Your task to perform on an android device: Play the new Taylor Swift video on YouTube Image 0: 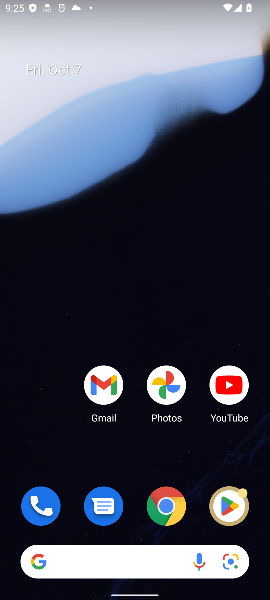
Step 0: click (227, 386)
Your task to perform on an android device: Play the new Taylor Swift video on YouTube Image 1: 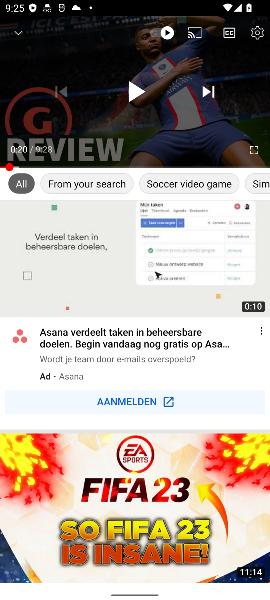
Step 1: press back button
Your task to perform on an android device: Play the new Taylor Swift video on YouTube Image 2: 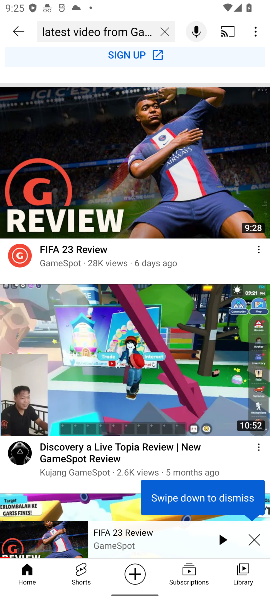
Step 2: click (28, 572)
Your task to perform on an android device: Play the new Taylor Swift video on YouTube Image 3: 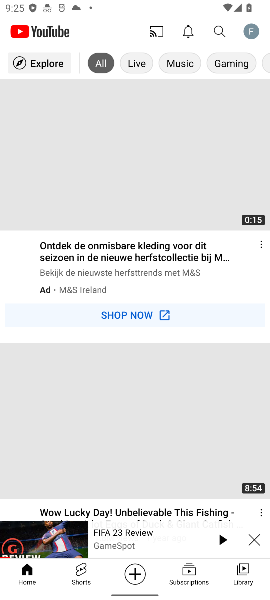
Step 3: click (216, 28)
Your task to perform on an android device: Play the new Taylor Swift video on YouTube Image 4: 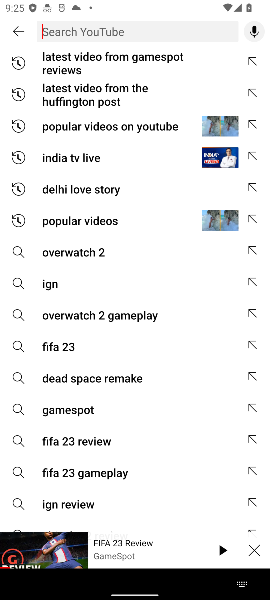
Step 4: click (250, 550)
Your task to perform on an android device: Play the new Taylor Swift video on YouTube Image 5: 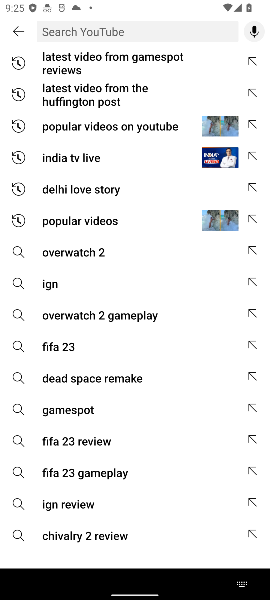
Step 5: click (90, 27)
Your task to perform on an android device: Play the new Taylor Swift video on YouTube Image 6: 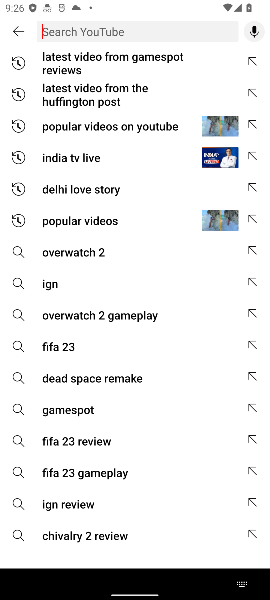
Step 6: type " new Taylor Swift video"
Your task to perform on an android device: Play the new Taylor Swift video on YouTube Image 7: 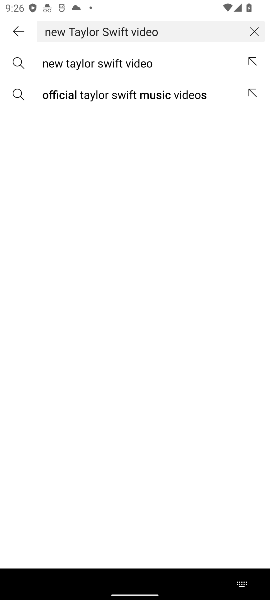
Step 7: click (111, 63)
Your task to perform on an android device: Play the new Taylor Swift video on YouTube Image 8: 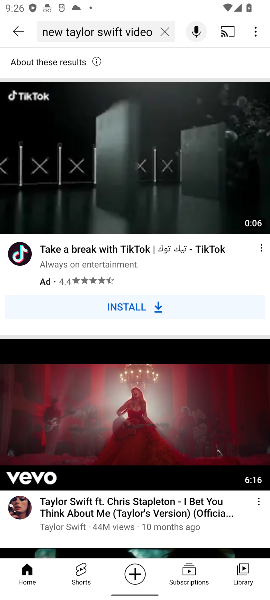
Step 8: drag from (94, 417) to (167, 183)
Your task to perform on an android device: Play the new Taylor Swift video on YouTube Image 9: 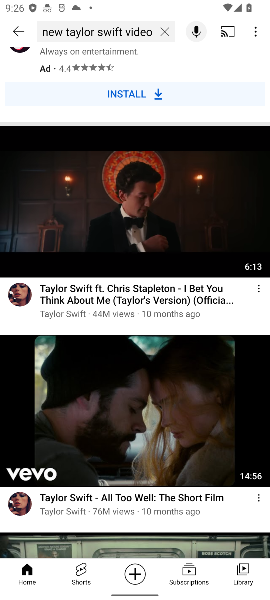
Step 9: click (128, 209)
Your task to perform on an android device: Play the new Taylor Swift video on YouTube Image 10: 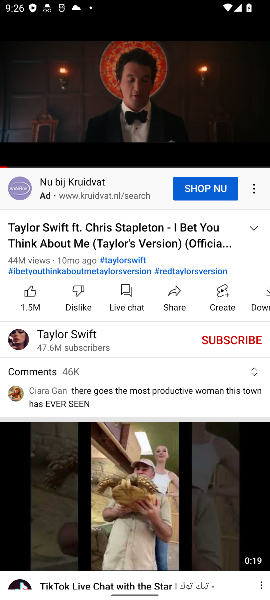
Step 10: click (161, 53)
Your task to perform on an android device: Play the new Taylor Swift video on YouTube Image 11: 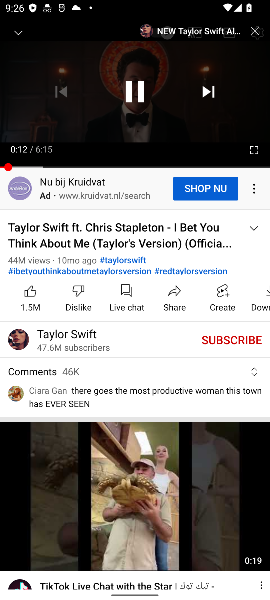
Step 11: click (138, 90)
Your task to perform on an android device: Play the new Taylor Swift video on YouTube Image 12: 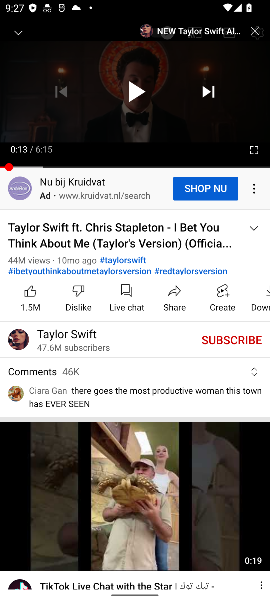
Step 12: task complete